Your task to perform on an android device: allow cookies in the chrome app Image 0: 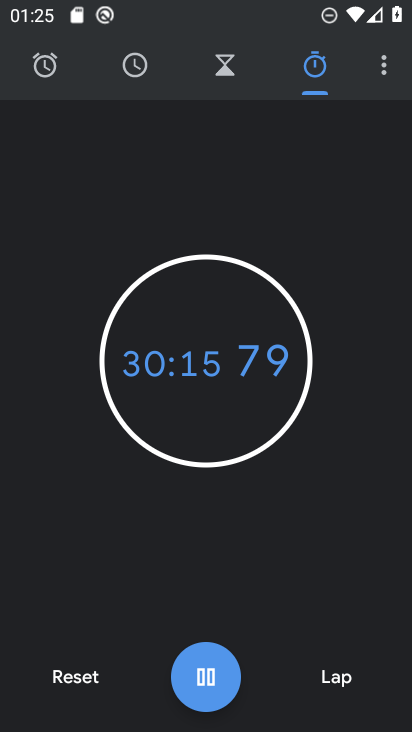
Step 0: drag from (328, 581) to (325, 56)
Your task to perform on an android device: allow cookies in the chrome app Image 1: 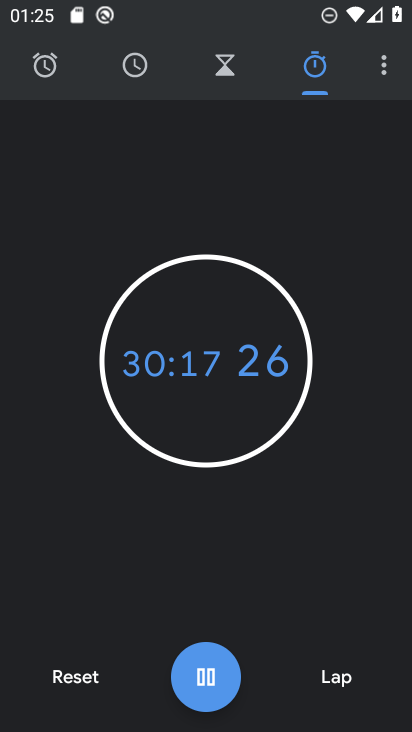
Step 1: press home button
Your task to perform on an android device: allow cookies in the chrome app Image 2: 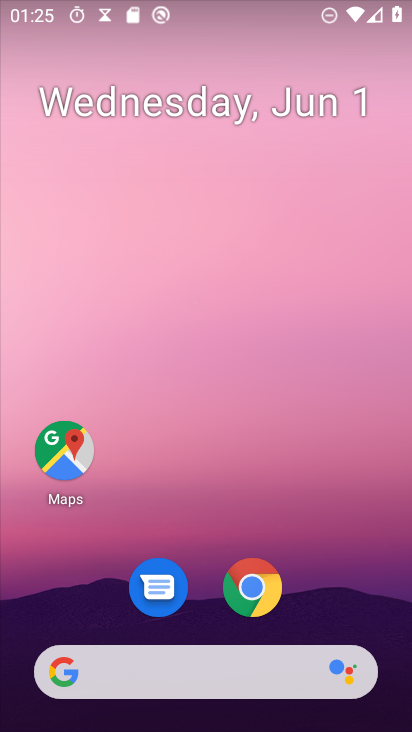
Step 2: click (253, 589)
Your task to perform on an android device: allow cookies in the chrome app Image 3: 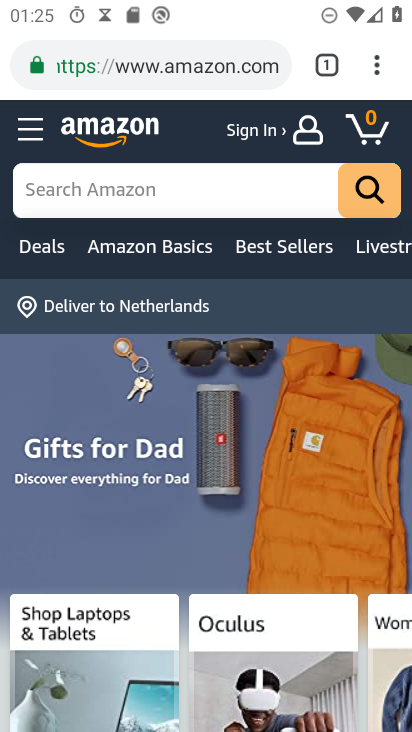
Step 3: click (381, 68)
Your task to perform on an android device: allow cookies in the chrome app Image 4: 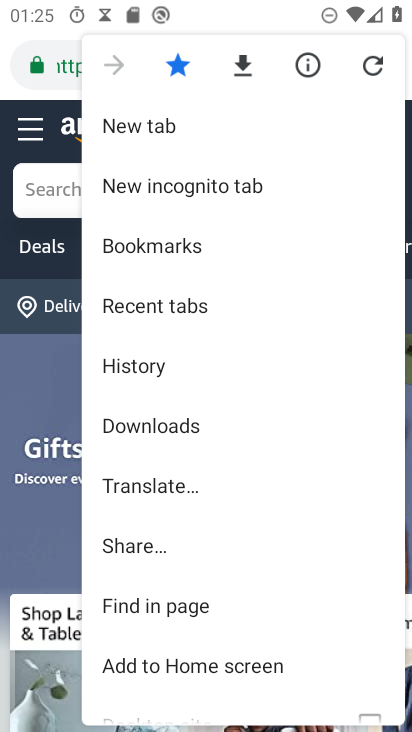
Step 4: drag from (207, 560) to (206, 61)
Your task to perform on an android device: allow cookies in the chrome app Image 5: 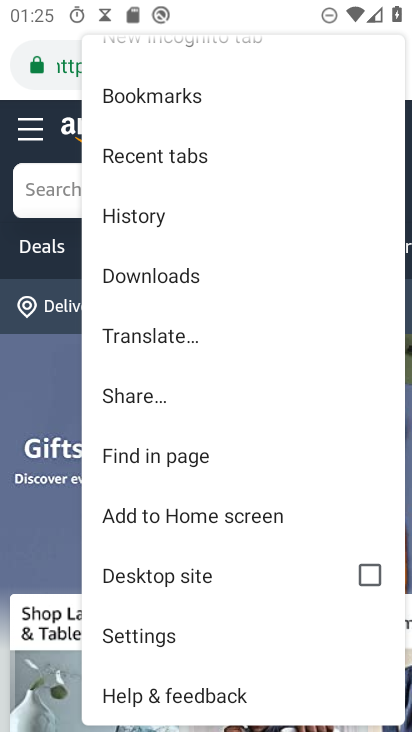
Step 5: click (185, 641)
Your task to perform on an android device: allow cookies in the chrome app Image 6: 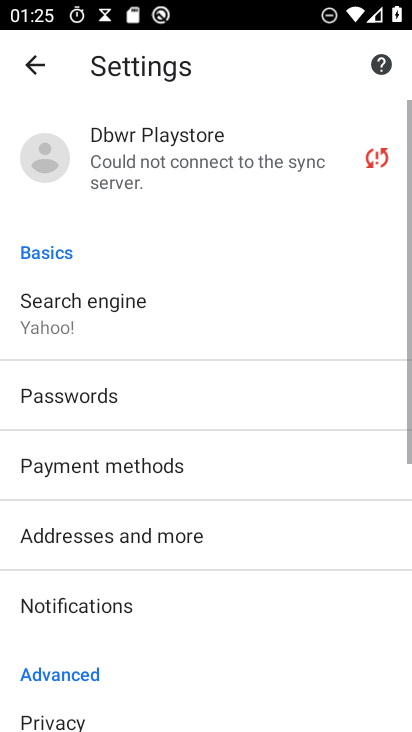
Step 6: drag from (178, 605) to (255, 97)
Your task to perform on an android device: allow cookies in the chrome app Image 7: 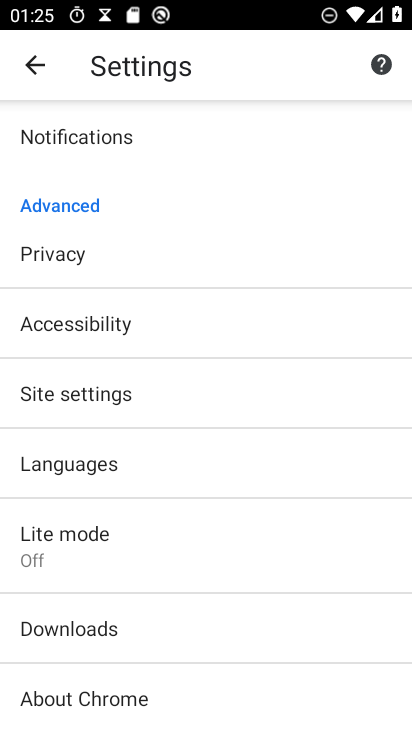
Step 7: click (138, 380)
Your task to perform on an android device: allow cookies in the chrome app Image 8: 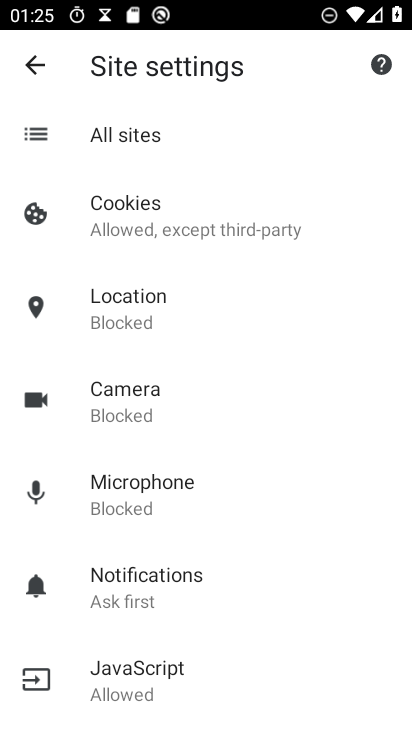
Step 8: click (168, 212)
Your task to perform on an android device: allow cookies in the chrome app Image 9: 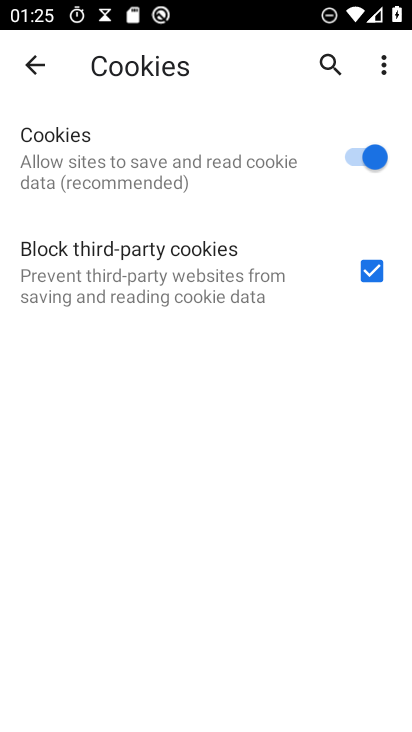
Step 9: task complete